Your task to perform on an android device: Show me popular games on the Play Store Image 0: 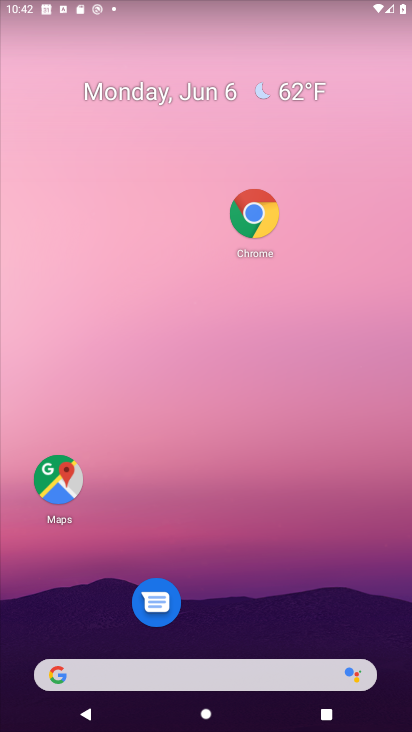
Step 0: drag from (205, 623) to (255, 101)
Your task to perform on an android device: Show me popular games on the Play Store Image 1: 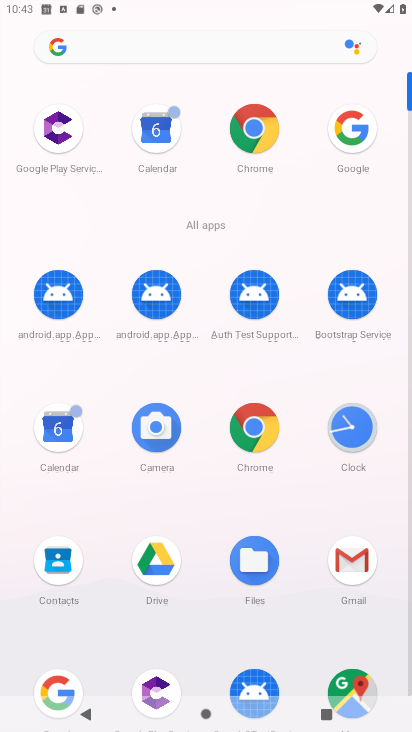
Step 1: drag from (242, 549) to (207, 145)
Your task to perform on an android device: Show me popular games on the Play Store Image 2: 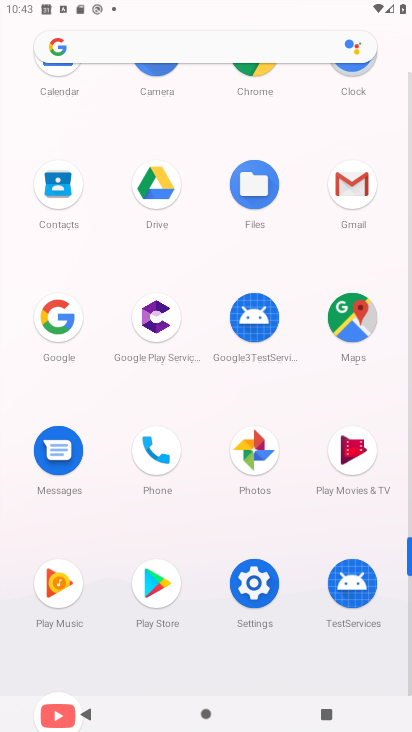
Step 2: click (152, 590)
Your task to perform on an android device: Show me popular games on the Play Store Image 3: 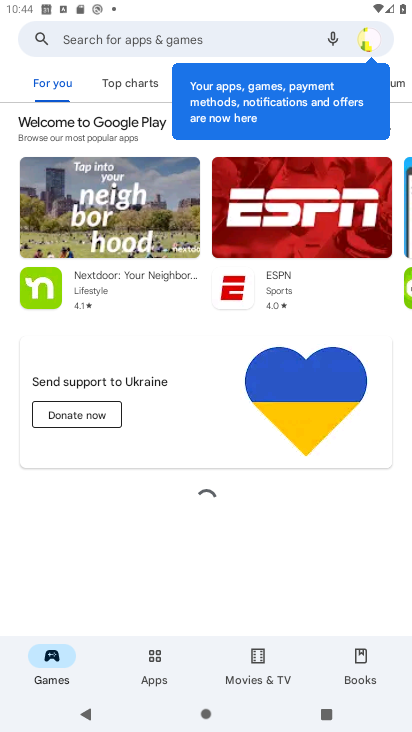
Step 3: task complete